Your task to perform on an android device: Open Android settings Image 0: 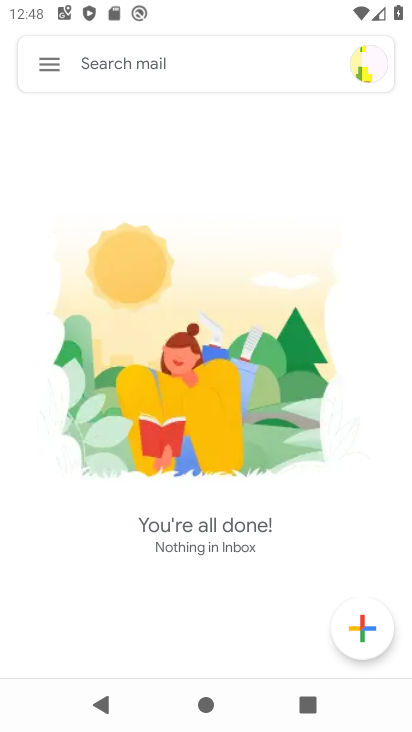
Step 0: press home button
Your task to perform on an android device: Open Android settings Image 1: 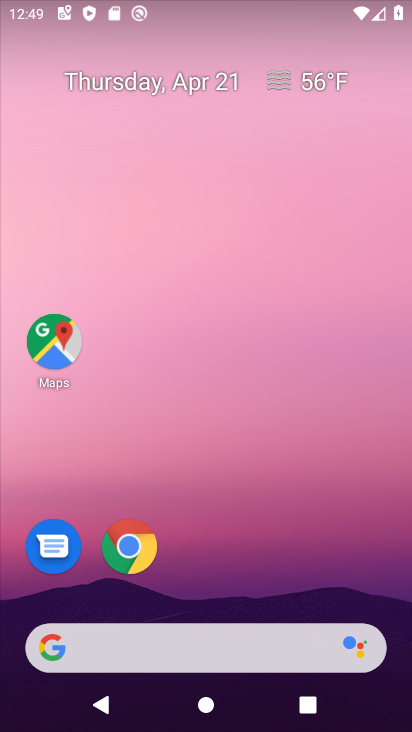
Step 1: drag from (183, 646) to (351, 44)
Your task to perform on an android device: Open Android settings Image 2: 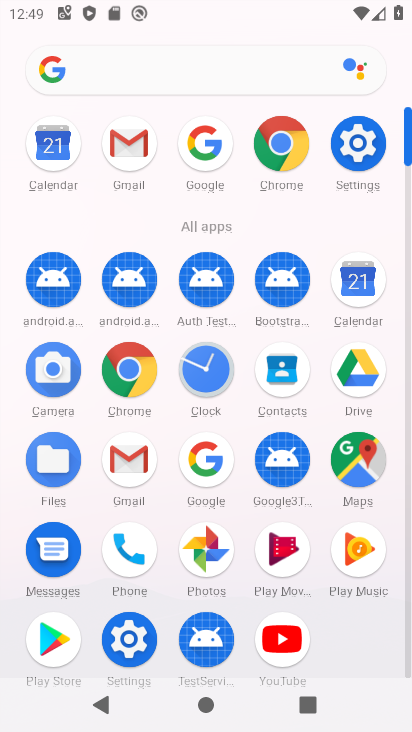
Step 2: click (354, 134)
Your task to perform on an android device: Open Android settings Image 3: 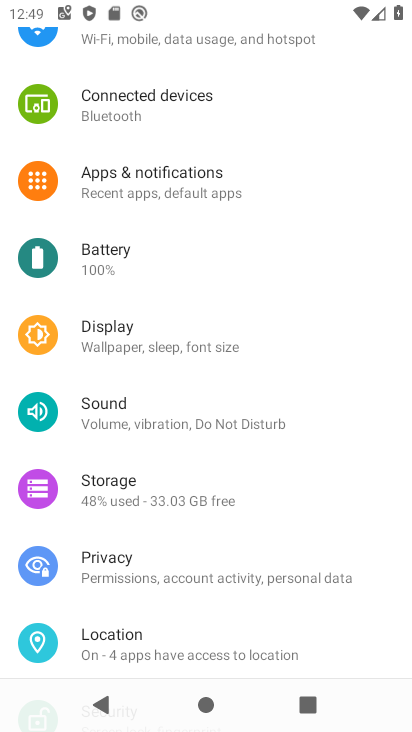
Step 3: task complete